Your task to perform on an android device: Open ESPN.com Image 0: 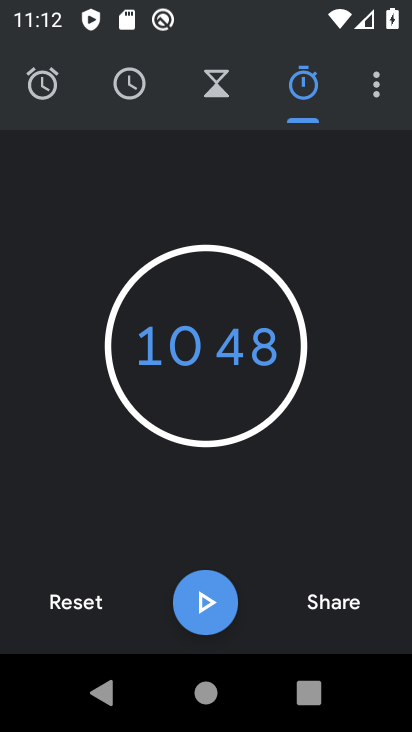
Step 0: press home button
Your task to perform on an android device: Open ESPN.com Image 1: 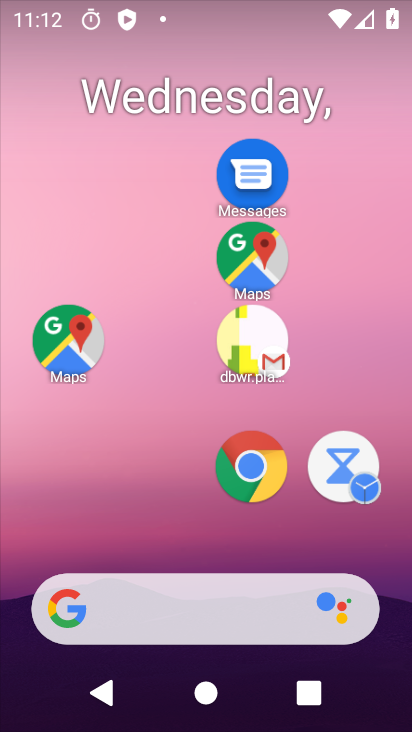
Step 1: drag from (234, 710) to (155, 138)
Your task to perform on an android device: Open ESPN.com Image 2: 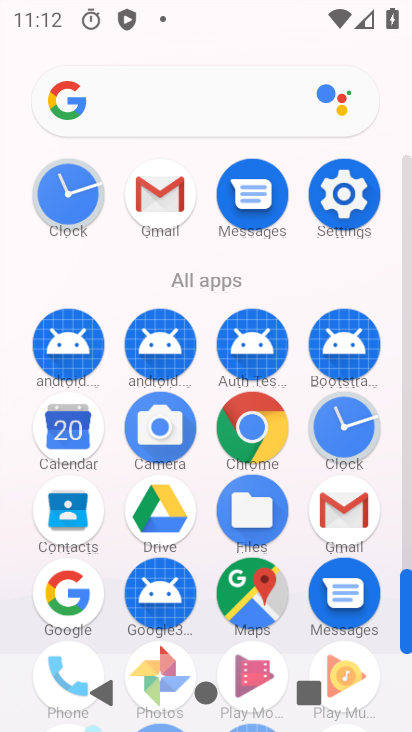
Step 2: drag from (239, 670) to (113, 182)
Your task to perform on an android device: Open ESPN.com Image 3: 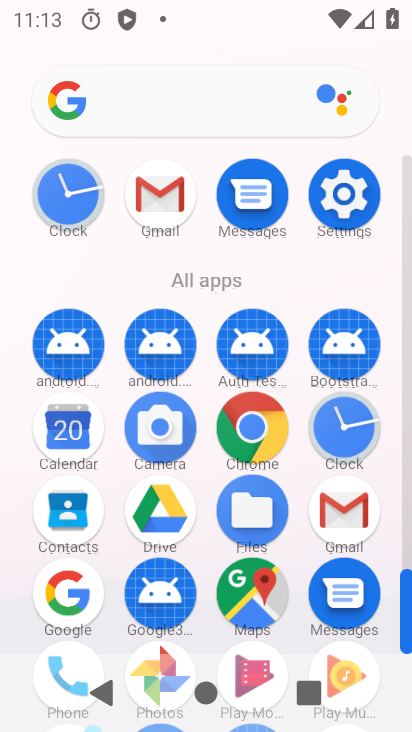
Step 3: click (255, 425)
Your task to perform on an android device: Open ESPN.com Image 4: 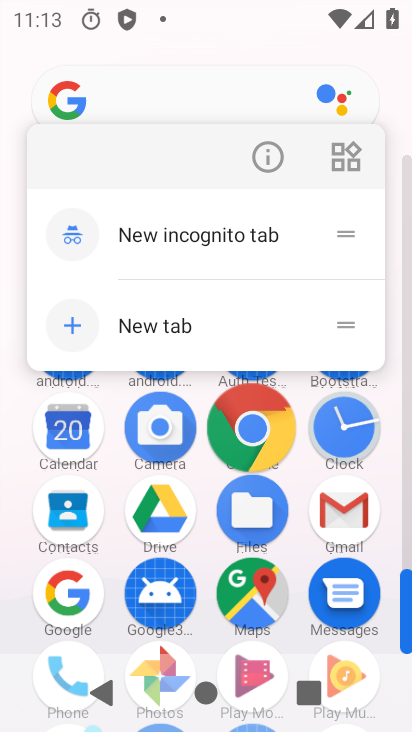
Step 4: click (255, 425)
Your task to perform on an android device: Open ESPN.com Image 5: 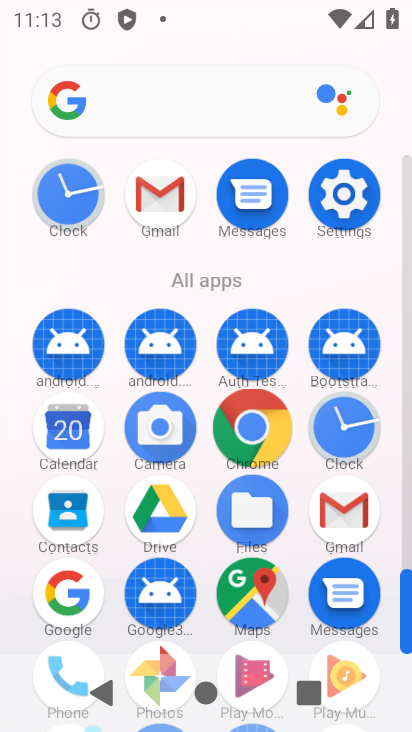
Step 5: click (255, 425)
Your task to perform on an android device: Open ESPN.com Image 6: 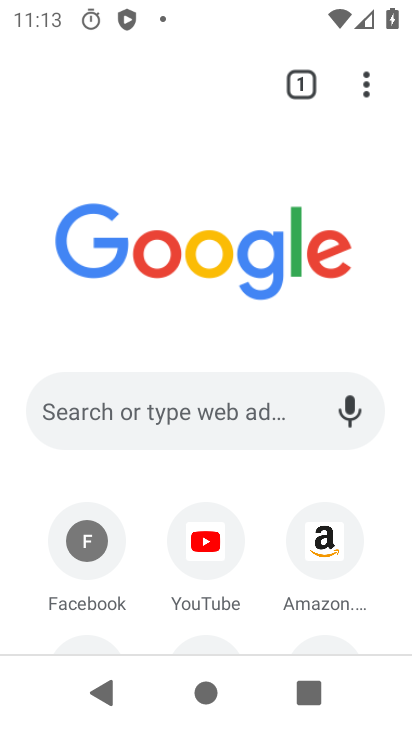
Step 6: click (256, 425)
Your task to perform on an android device: Open ESPN.com Image 7: 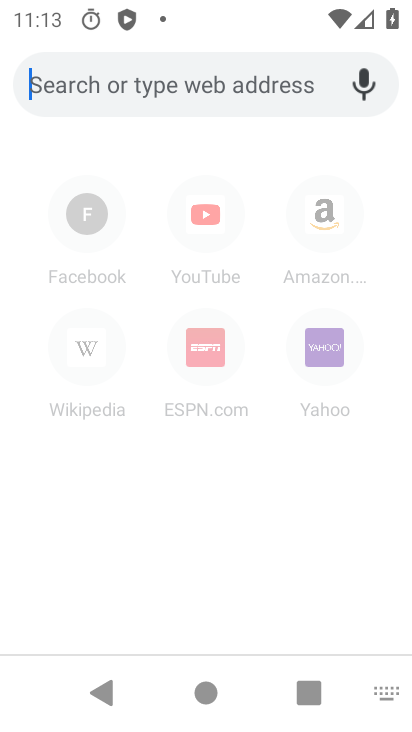
Step 7: drag from (265, 571) to (227, 179)
Your task to perform on an android device: Open ESPN.com Image 8: 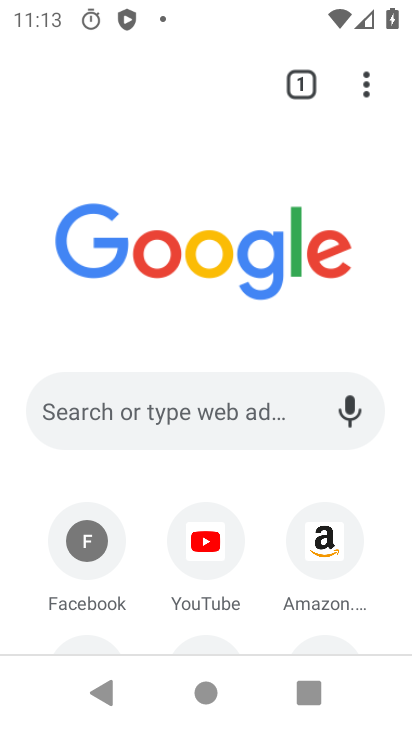
Step 8: drag from (245, 535) to (189, 171)
Your task to perform on an android device: Open ESPN.com Image 9: 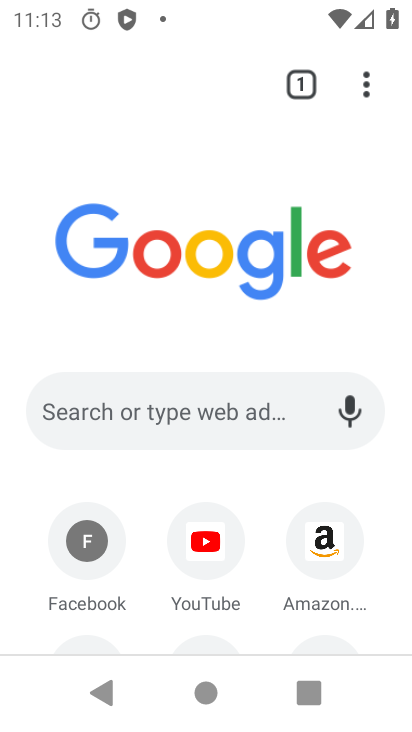
Step 9: drag from (233, 532) to (189, 152)
Your task to perform on an android device: Open ESPN.com Image 10: 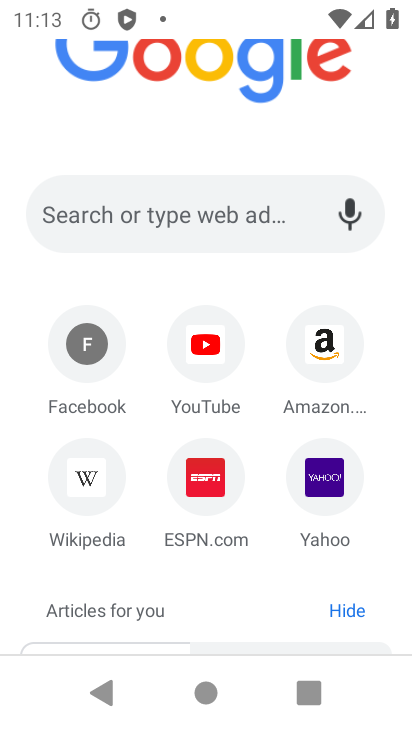
Step 10: drag from (246, 552) to (136, 158)
Your task to perform on an android device: Open ESPN.com Image 11: 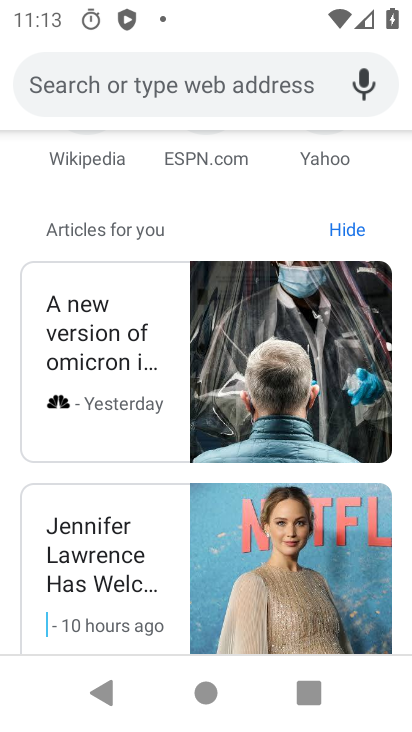
Step 11: drag from (203, 203) to (235, 444)
Your task to perform on an android device: Open ESPN.com Image 12: 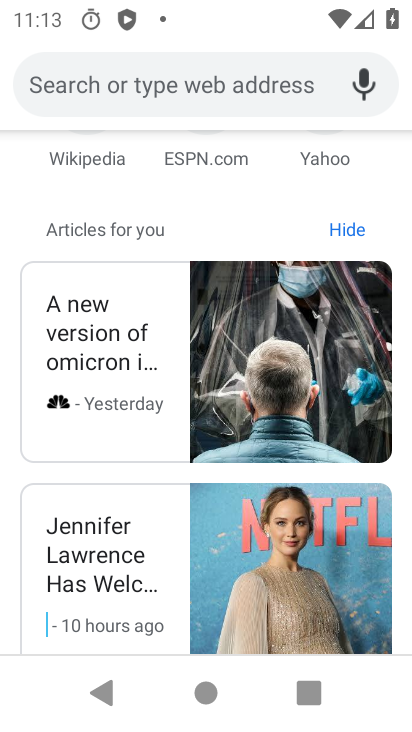
Step 12: drag from (212, 401) to (219, 501)
Your task to perform on an android device: Open ESPN.com Image 13: 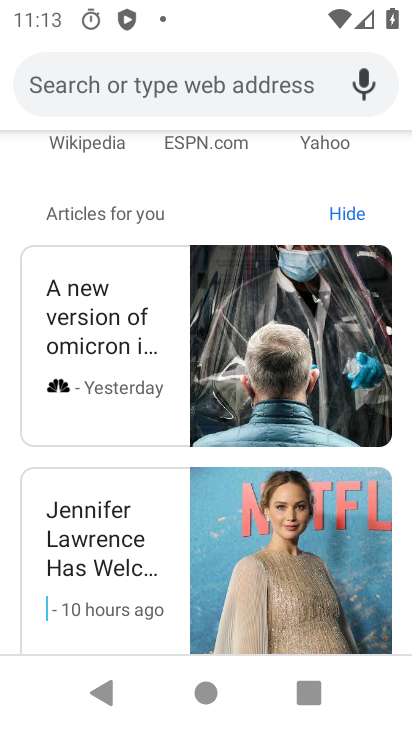
Step 13: click (203, 142)
Your task to perform on an android device: Open ESPN.com Image 14: 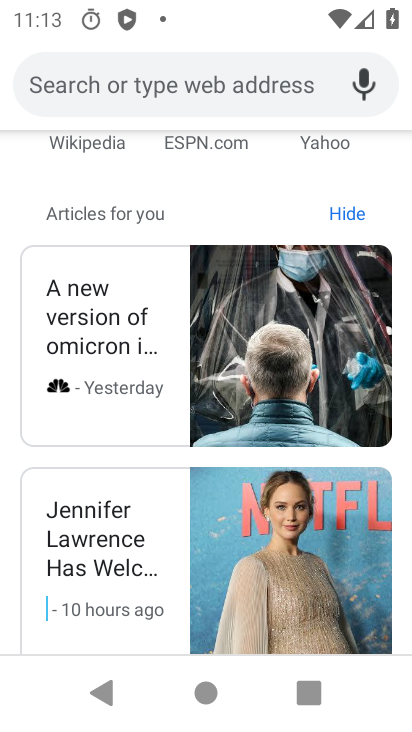
Step 14: click (203, 142)
Your task to perform on an android device: Open ESPN.com Image 15: 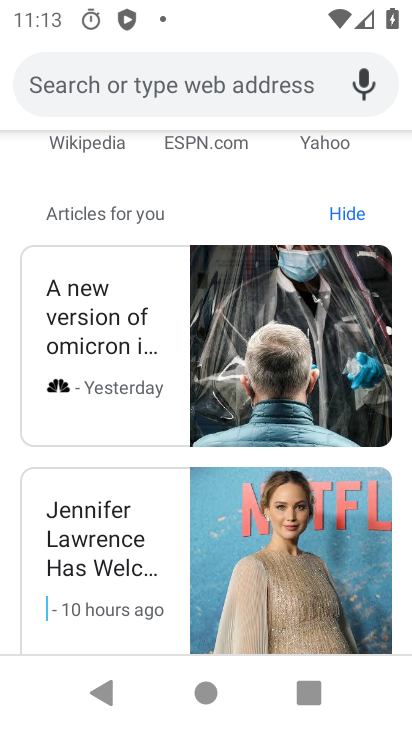
Step 15: click (203, 142)
Your task to perform on an android device: Open ESPN.com Image 16: 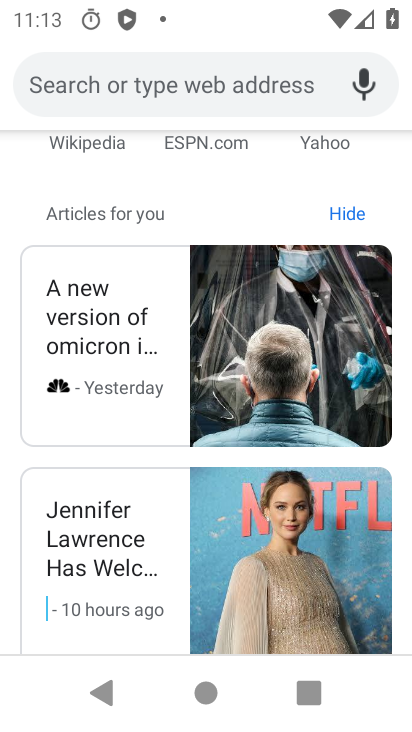
Step 16: click (202, 152)
Your task to perform on an android device: Open ESPN.com Image 17: 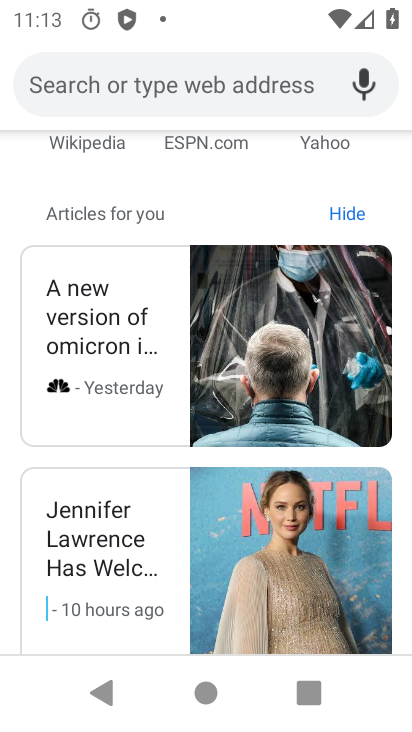
Step 17: click (201, 133)
Your task to perform on an android device: Open ESPN.com Image 18: 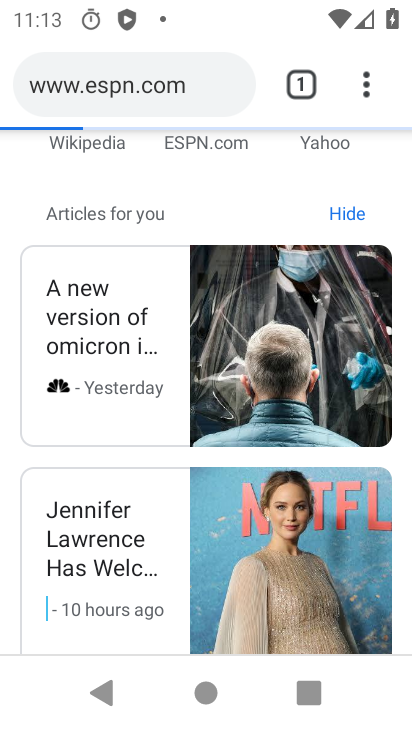
Step 18: click (199, 146)
Your task to perform on an android device: Open ESPN.com Image 19: 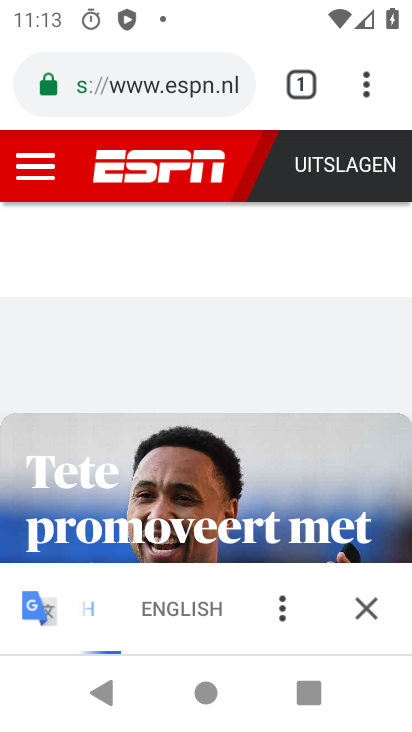
Step 19: task complete